Your task to perform on an android device: Open Google Maps and go to "Timeline" Image 0: 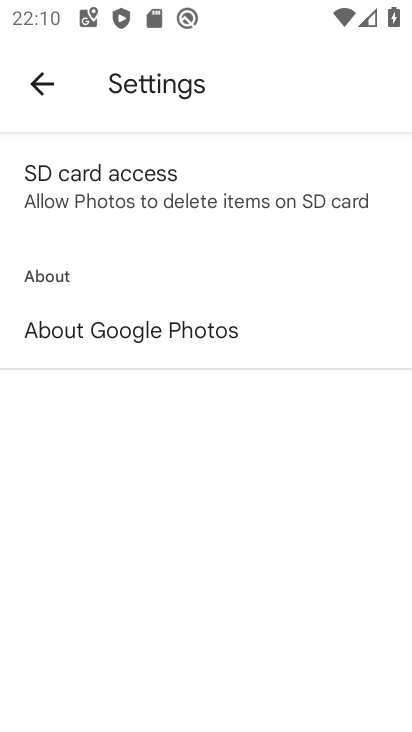
Step 0: press home button
Your task to perform on an android device: Open Google Maps and go to "Timeline" Image 1: 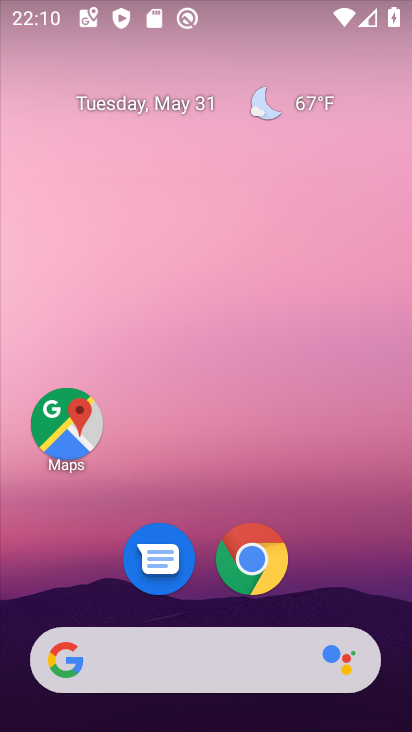
Step 1: click (67, 428)
Your task to perform on an android device: Open Google Maps and go to "Timeline" Image 2: 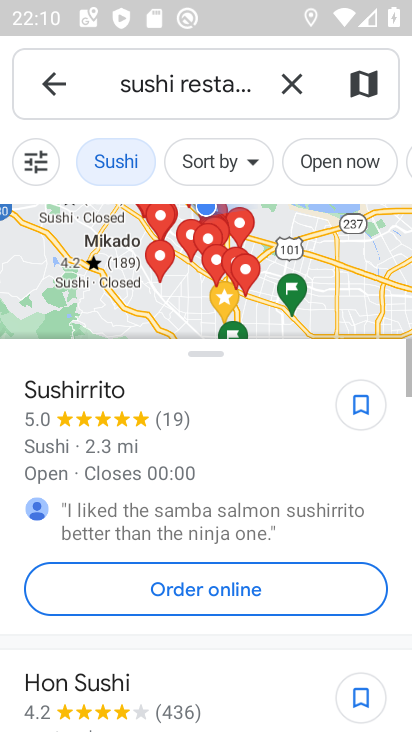
Step 2: click (292, 86)
Your task to perform on an android device: Open Google Maps and go to "Timeline" Image 3: 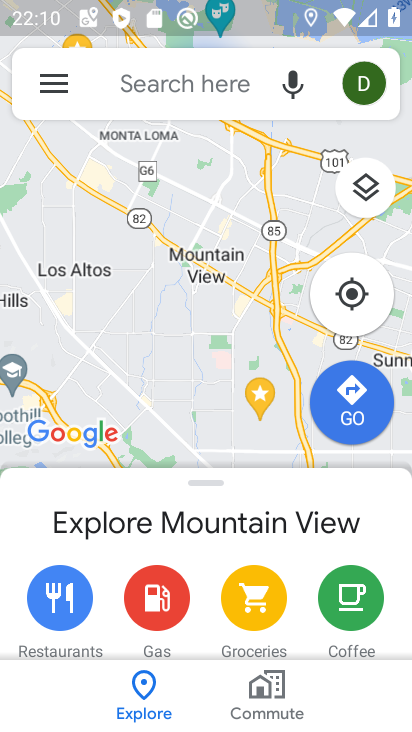
Step 3: click (55, 81)
Your task to perform on an android device: Open Google Maps and go to "Timeline" Image 4: 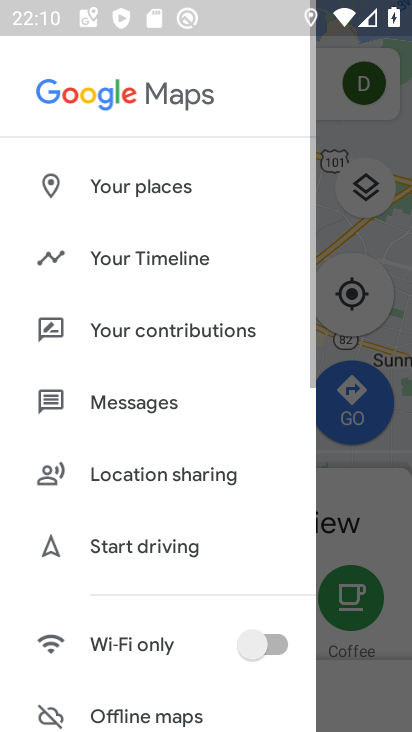
Step 4: click (156, 261)
Your task to perform on an android device: Open Google Maps and go to "Timeline" Image 5: 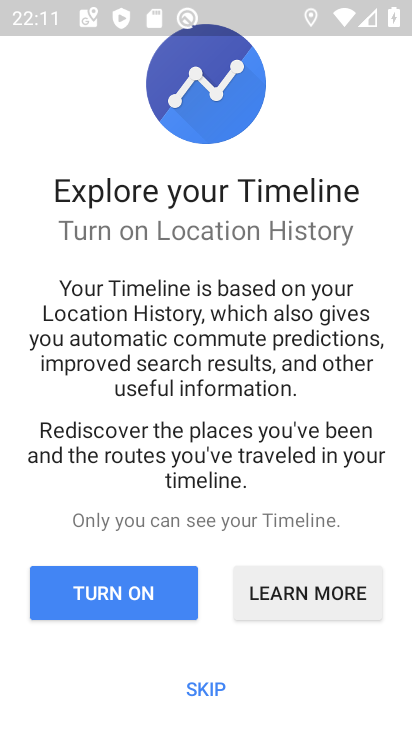
Step 5: click (214, 690)
Your task to perform on an android device: Open Google Maps and go to "Timeline" Image 6: 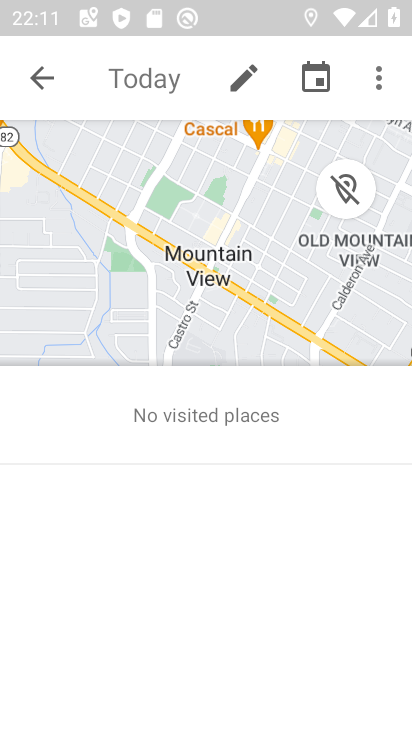
Step 6: task complete